Your task to perform on an android device: Open Google Image 0: 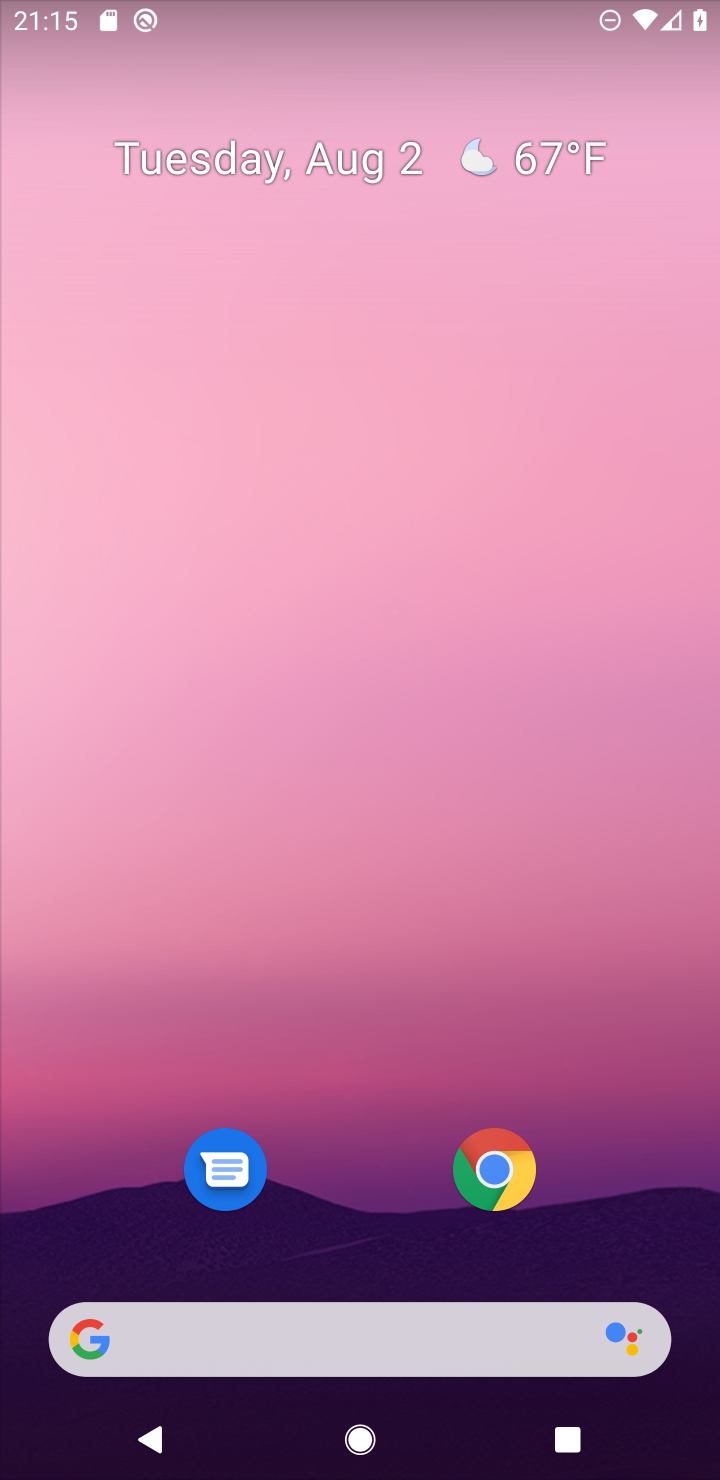
Step 0: drag from (384, 1231) to (371, 316)
Your task to perform on an android device: Open Google Image 1: 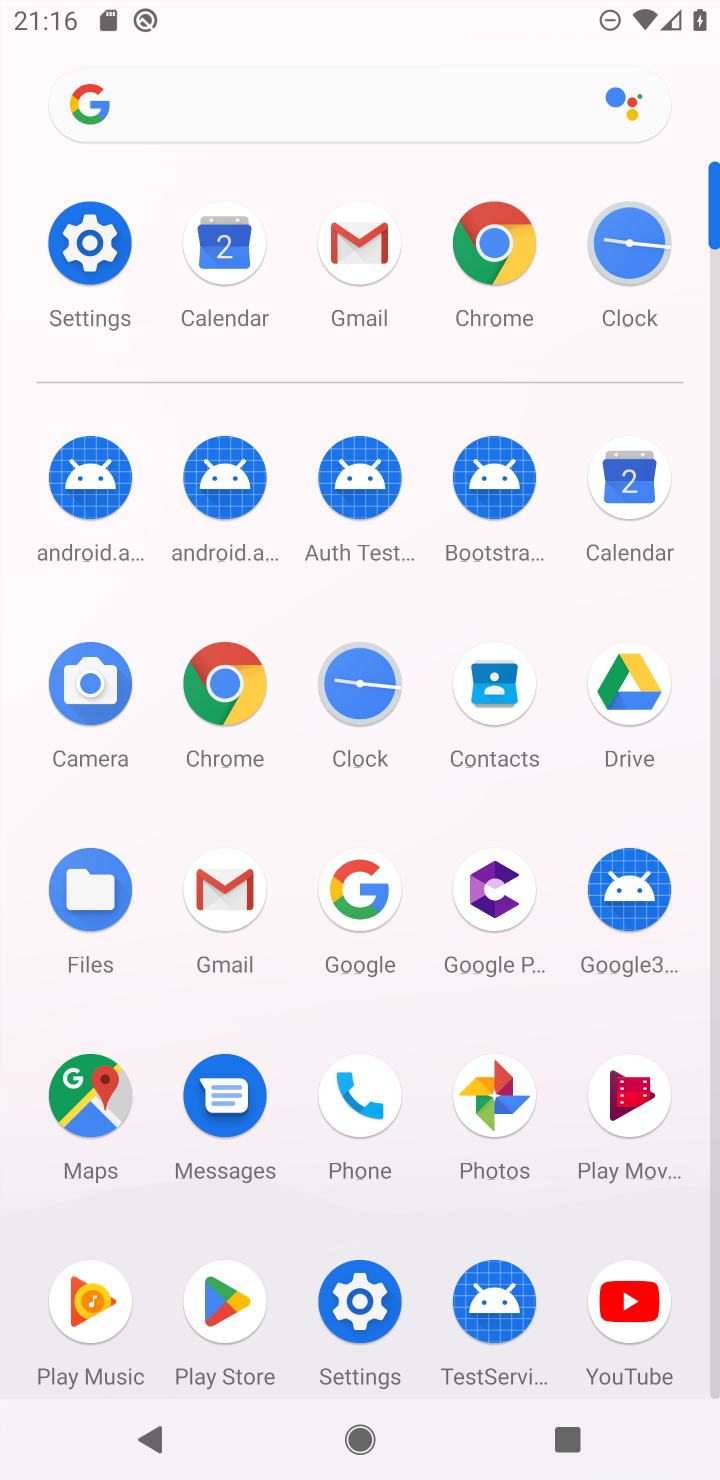
Step 1: click (359, 894)
Your task to perform on an android device: Open Google Image 2: 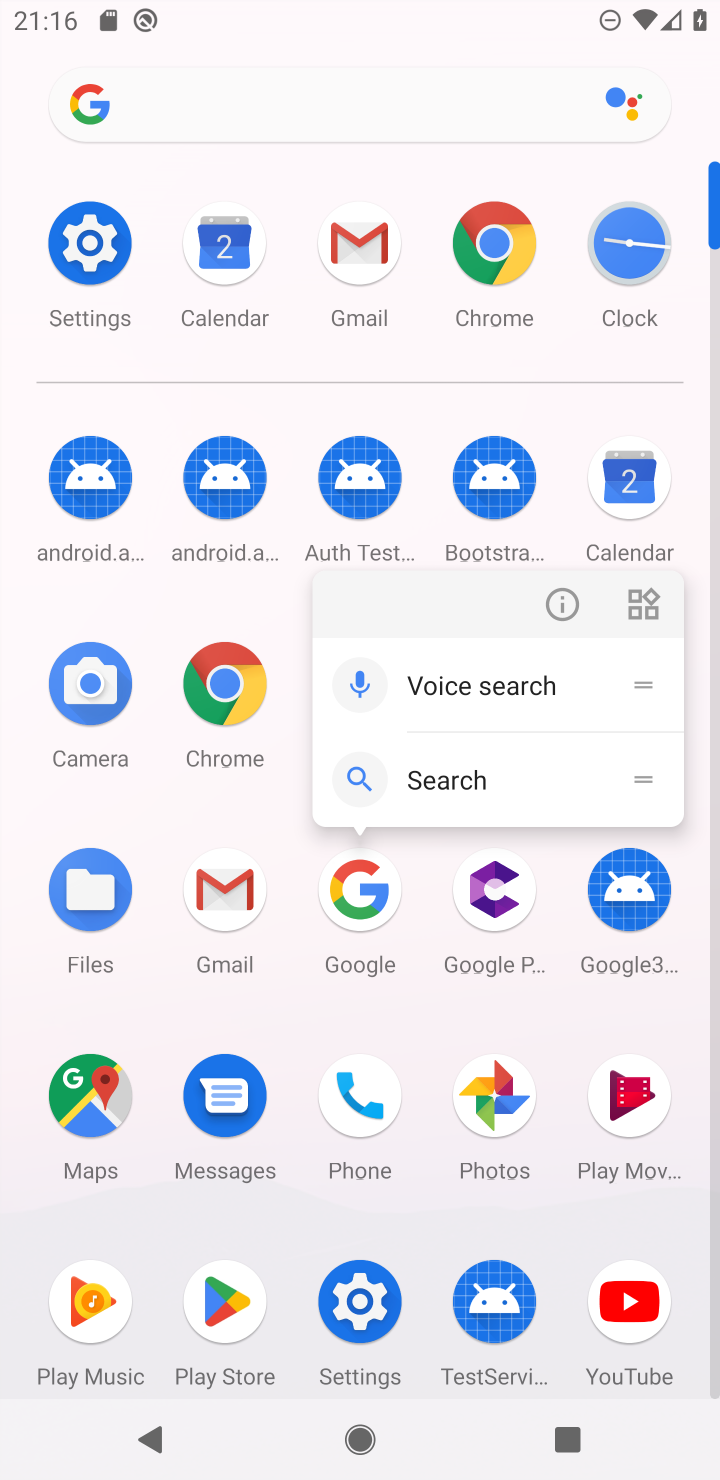
Step 2: click (365, 881)
Your task to perform on an android device: Open Google Image 3: 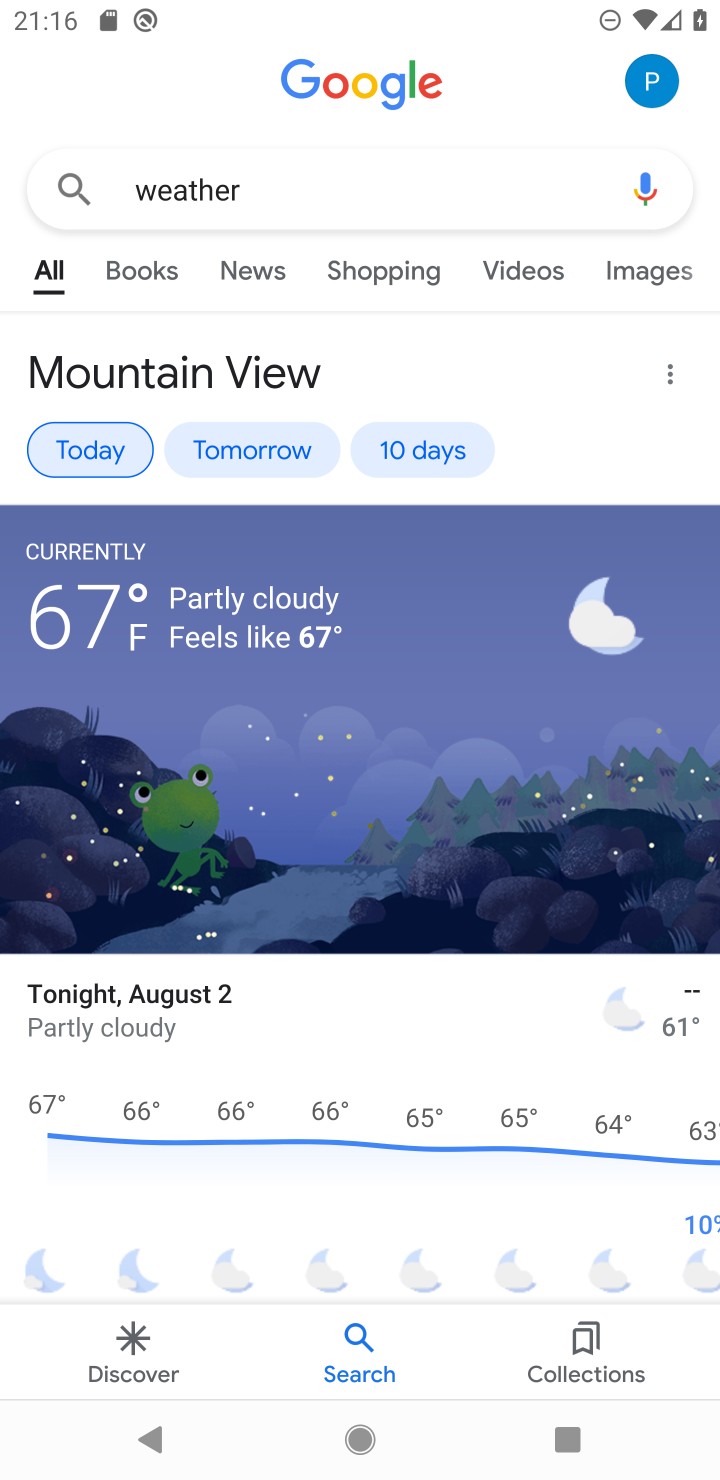
Step 3: task complete